Your task to perform on an android device: Open battery settings Image 0: 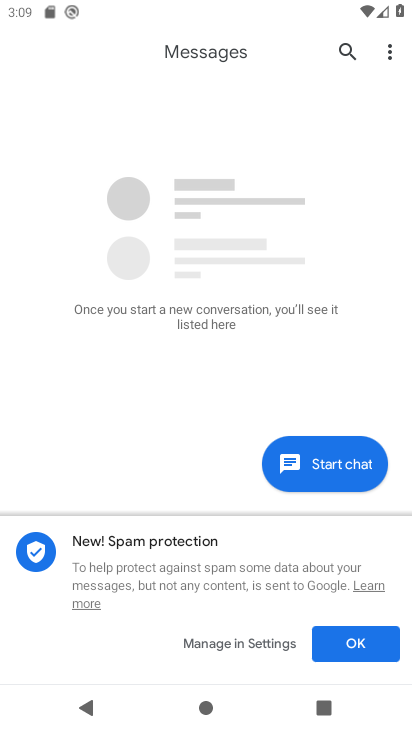
Step 0: press back button
Your task to perform on an android device: Open battery settings Image 1: 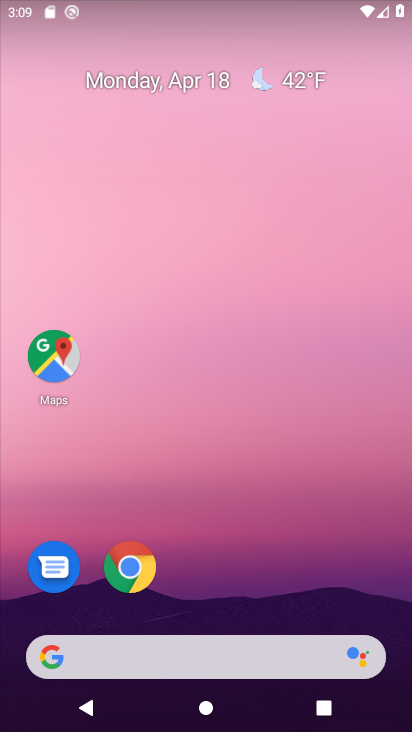
Step 1: drag from (183, 479) to (264, 4)
Your task to perform on an android device: Open battery settings Image 2: 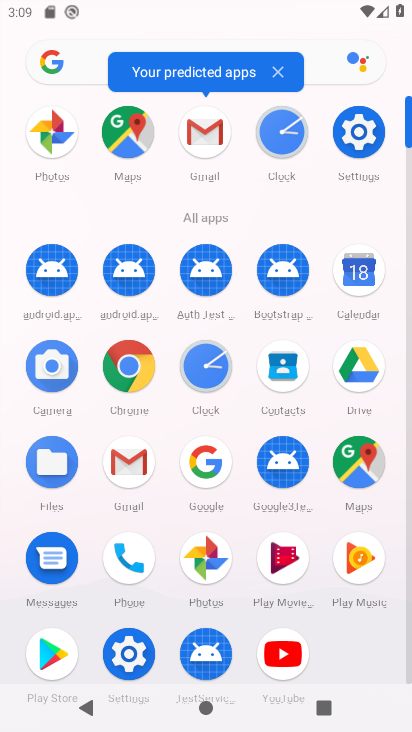
Step 2: click (111, 653)
Your task to perform on an android device: Open battery settings Image 3: 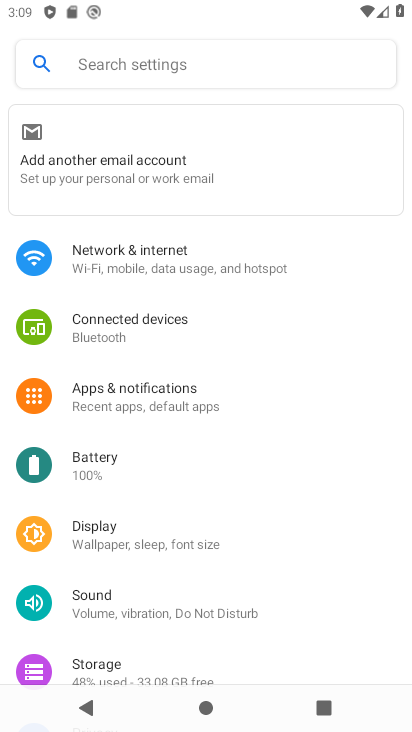
Step 3: click (190, 473)
Your task to perform on an android device: Open battery settings Image 4: 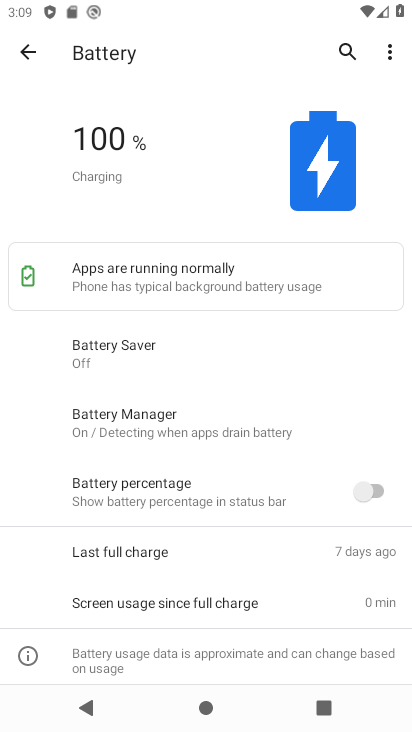
Step 4: click (384, 52)
Your task to perform on an android device: Open battery settings Image 5: 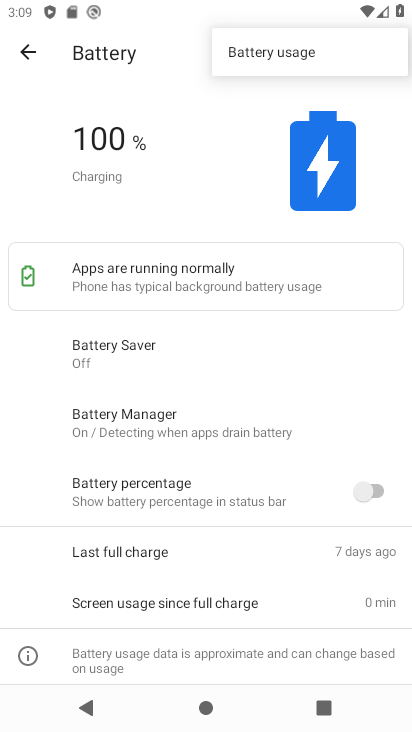
Step 5: click (369, 52)
Your task to perform on an android device: Open battery settings Image 6: 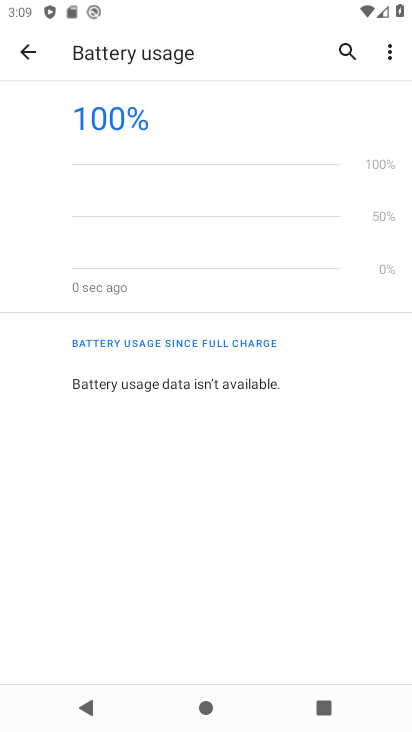
Step 6: task complete